Your task to perform on an android device: open chrome and create a bookmark for the current page Image 0: 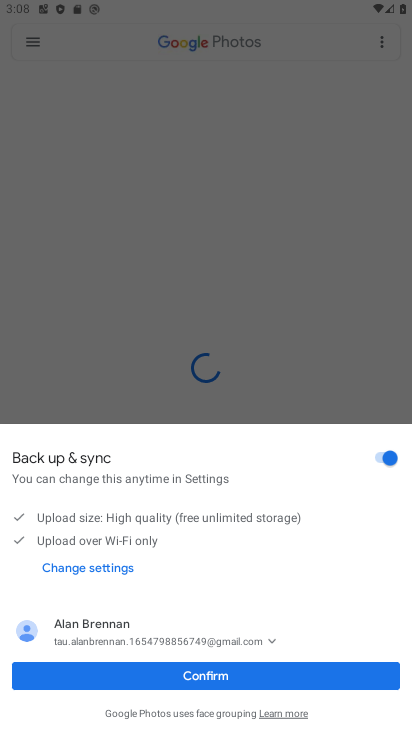
Step 0: press home button
Your task to perform on an android device: open chrome and create a bookmark for the current page Image 1: 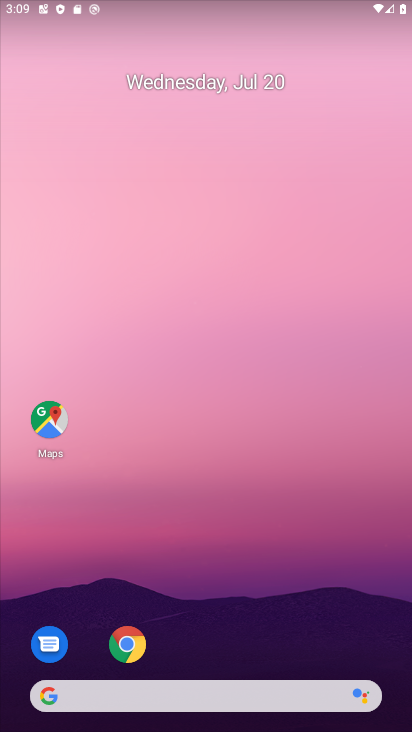
Step 1: click (124, 656)
Your task to perform on an android device: open chrome and create a bookmark for the current page Image 2: 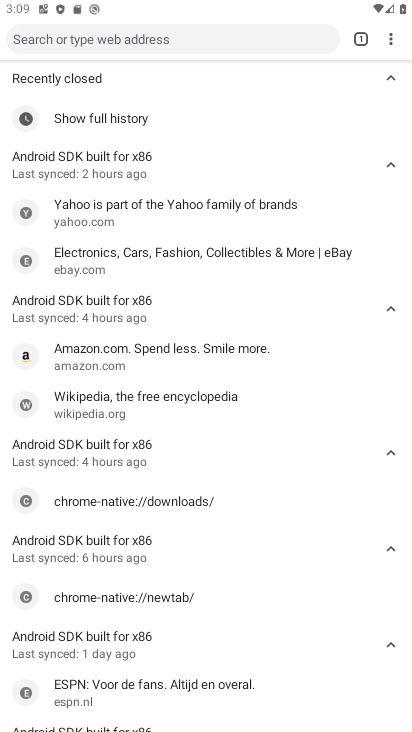
Step 2: task complete